Your task to perform on an android device: Find coffee shops on Maps Image 0: 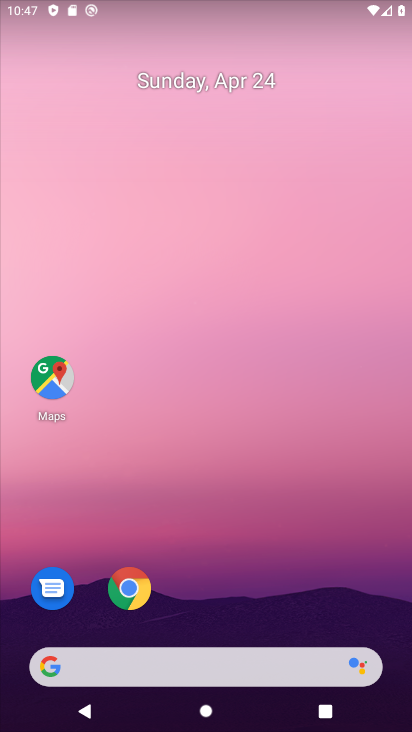
Step 0: click (52, 379)
Your task to perform on an android device: Find coffee shops on Maps Image 1: 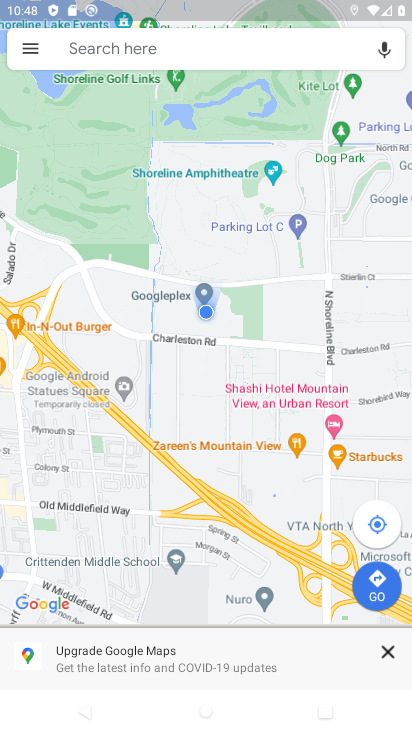
Step 1: click (110, 40)
Your task to perform on an android device: Find coffee shops on Maps Image 2: 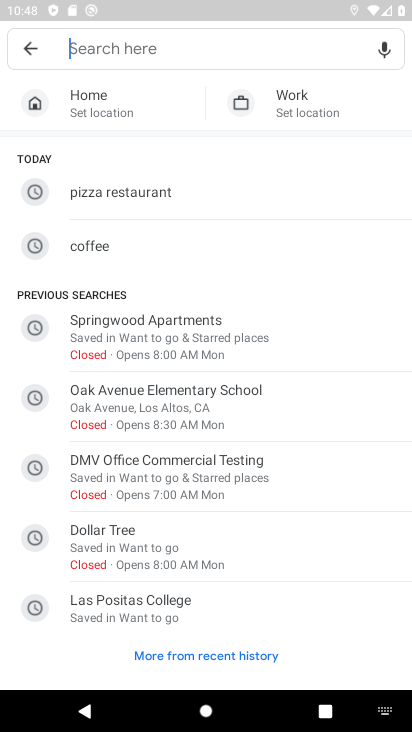
Step 2: type "coffee shops"
Your task to perform on an android device: Find coffee shops on Maps Image 3: 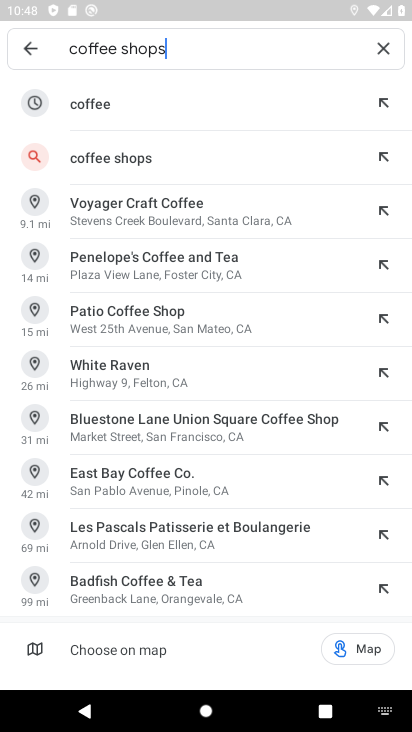
Step 3: click (175, 160)
Your task to perform on an android device: Find coffee shops on Maps Image 4: 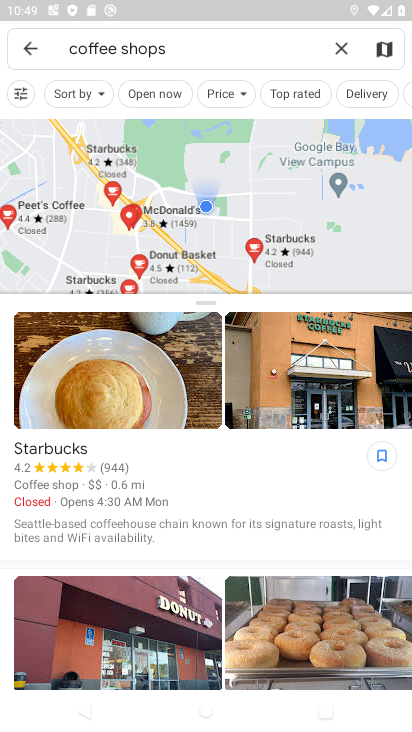
Step 4: task complete